Your task to perform on an android device: Open Reddit.com Image 0: 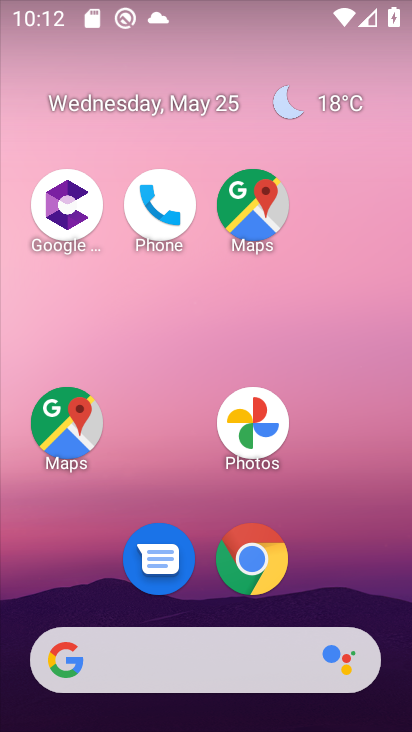
Step 0: click (254, 557)
Your task to perform on an android device: Open Reddit.com Image 1: 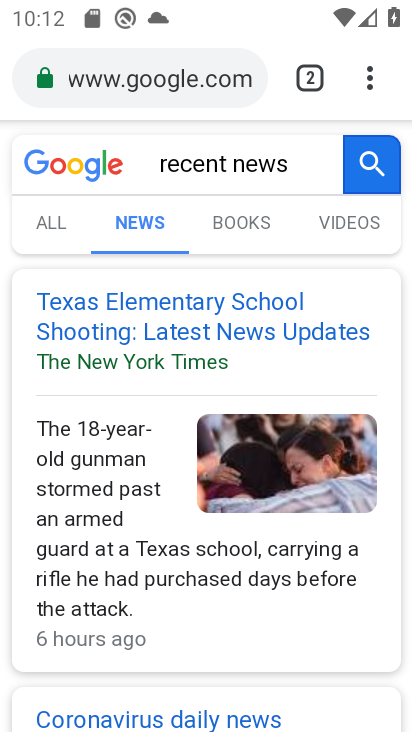
Step 1: click (312, 76)
Your task to perform on an android device: Open Reddit.com Image 2: 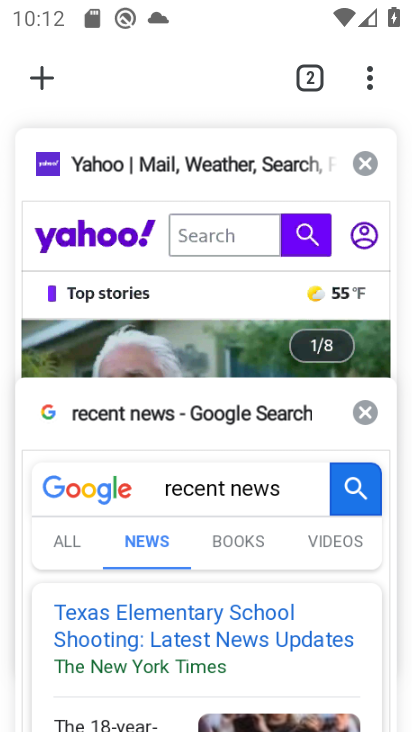
Step 2: click (37, 81)
Your task to perform on an android device: Open Reddit.com Image 3: 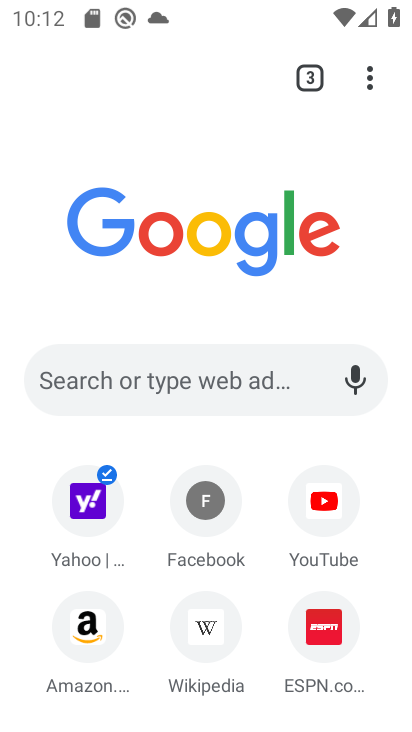
Step 3: click (165, 373)
Your task to perform on an android device: Open Reddit.com Image 4: 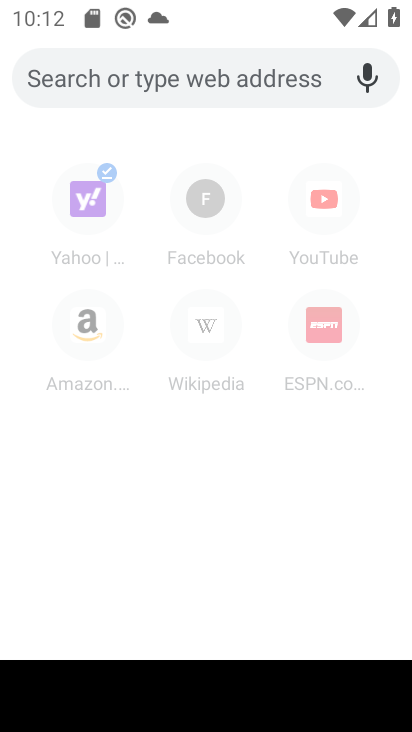
Step 4: type "Reddit.com"
Your task to perform on an android device: Open Reddit.com Image 5: 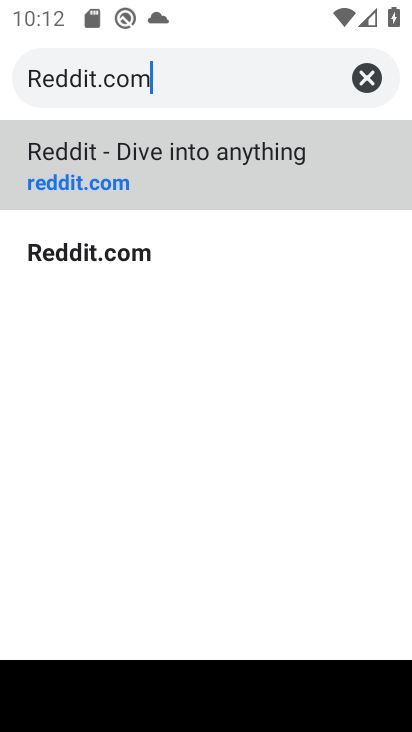
Step 5: click (82, 177)
Your task to perform on an android device: Open Reddit.com Image 6: 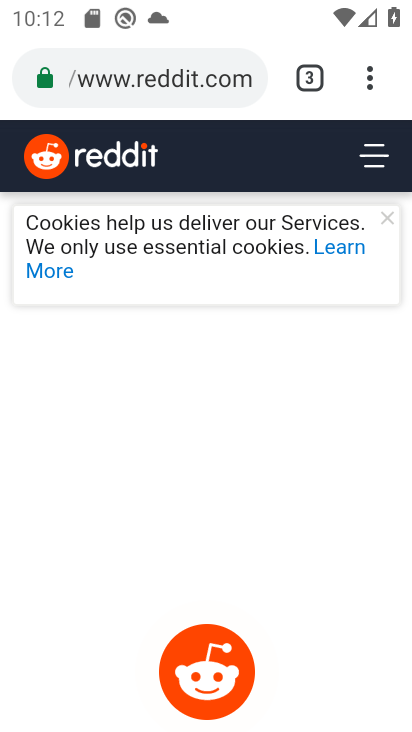
Step 6: task complete